Your task to perform on an android device: What's the US dollar exchange rateagainst the Swiss Franc? Image 0: 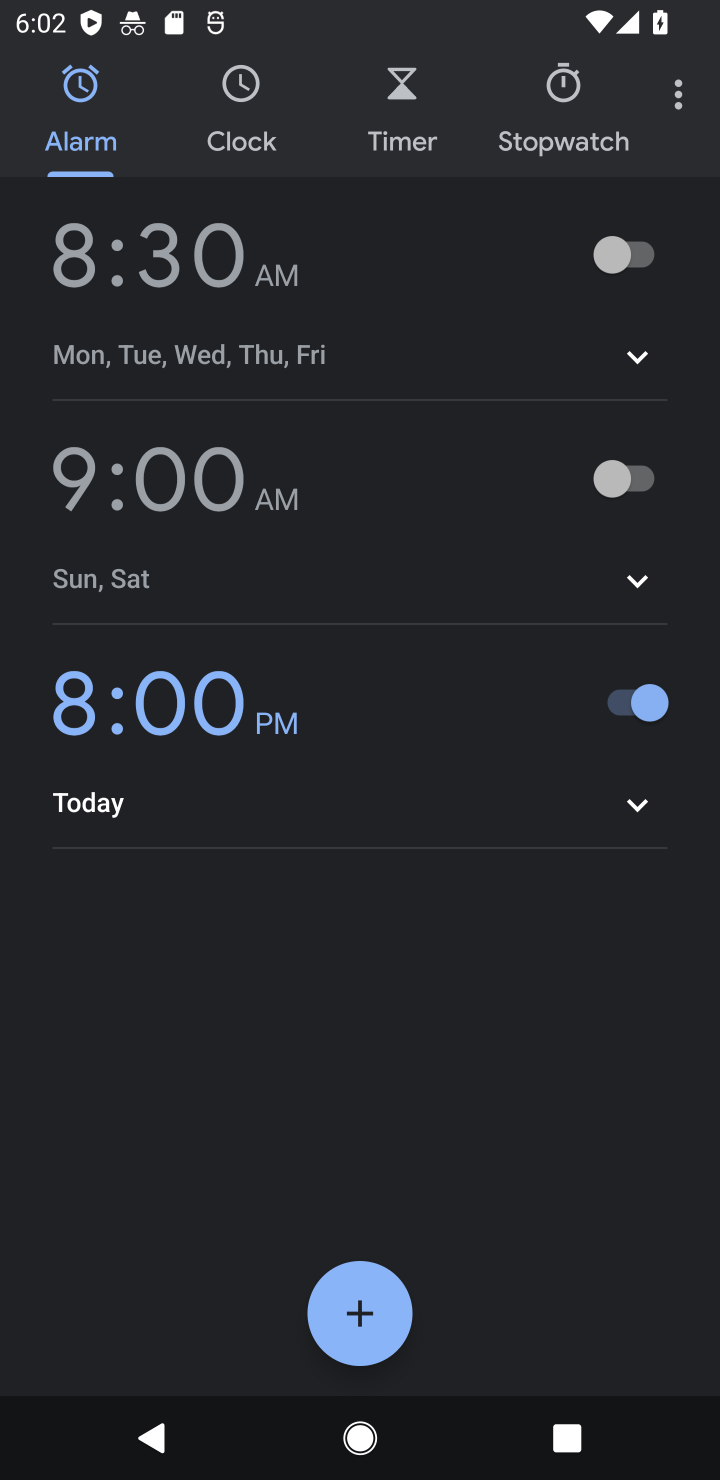
Step 0: press home button
Your task to perform on an android device: What's the US dollar exchange rateagainst the Swiss Franc? Image 1: 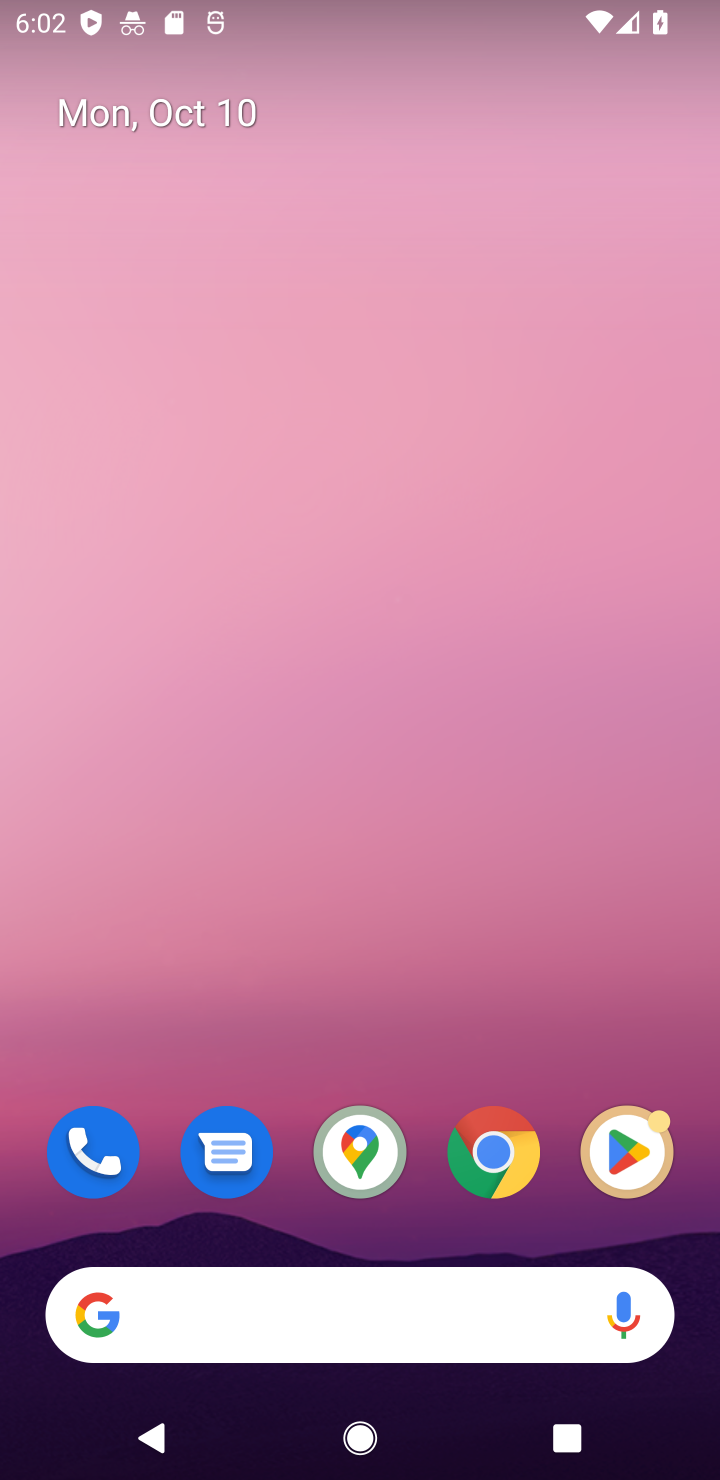
Step 1: click (487, 1154)
Your task to perform on an android device: What's the US dollar exchange rateagainst the Swiss Franc? Image 2: 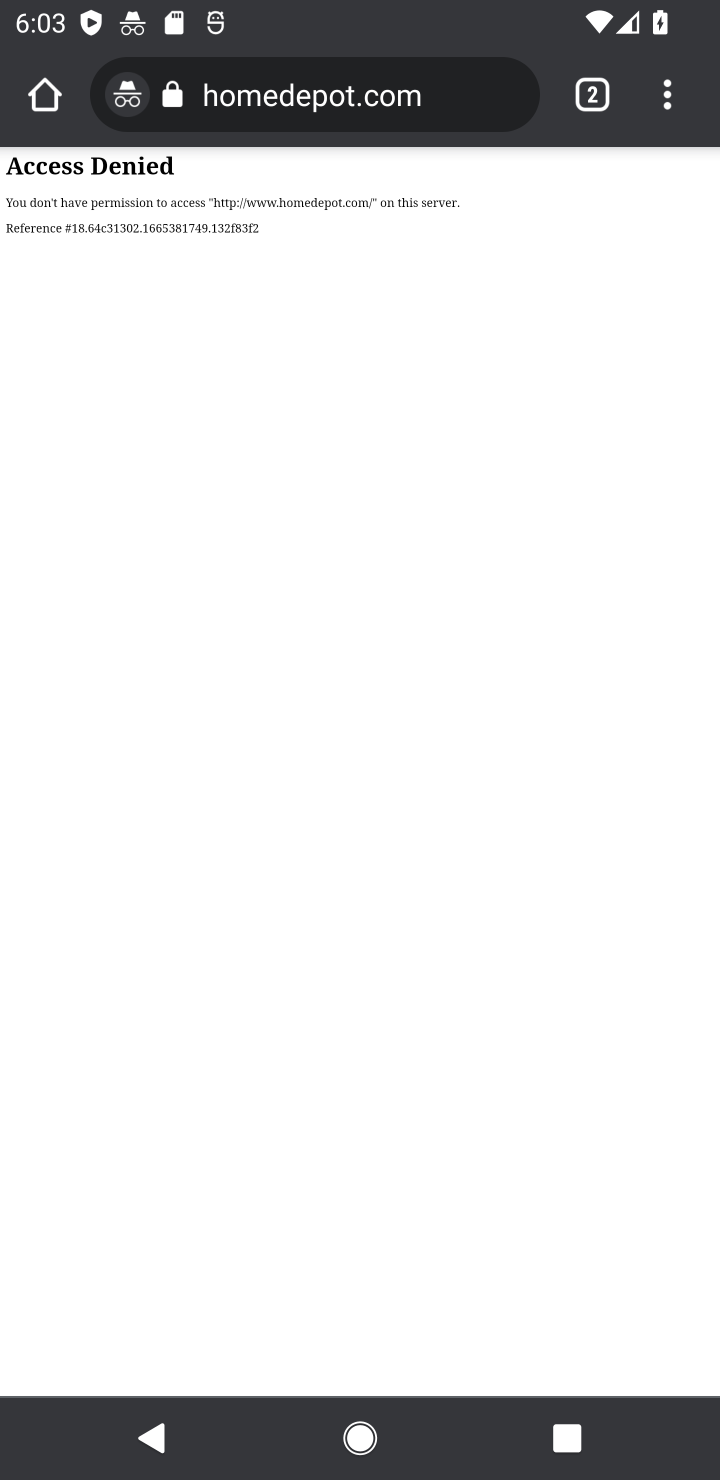
Step 2: click (435, 107)
Your task to perform on an android device: What's the US dollar exchange rateagainst the Swiss Franc? Image 3: 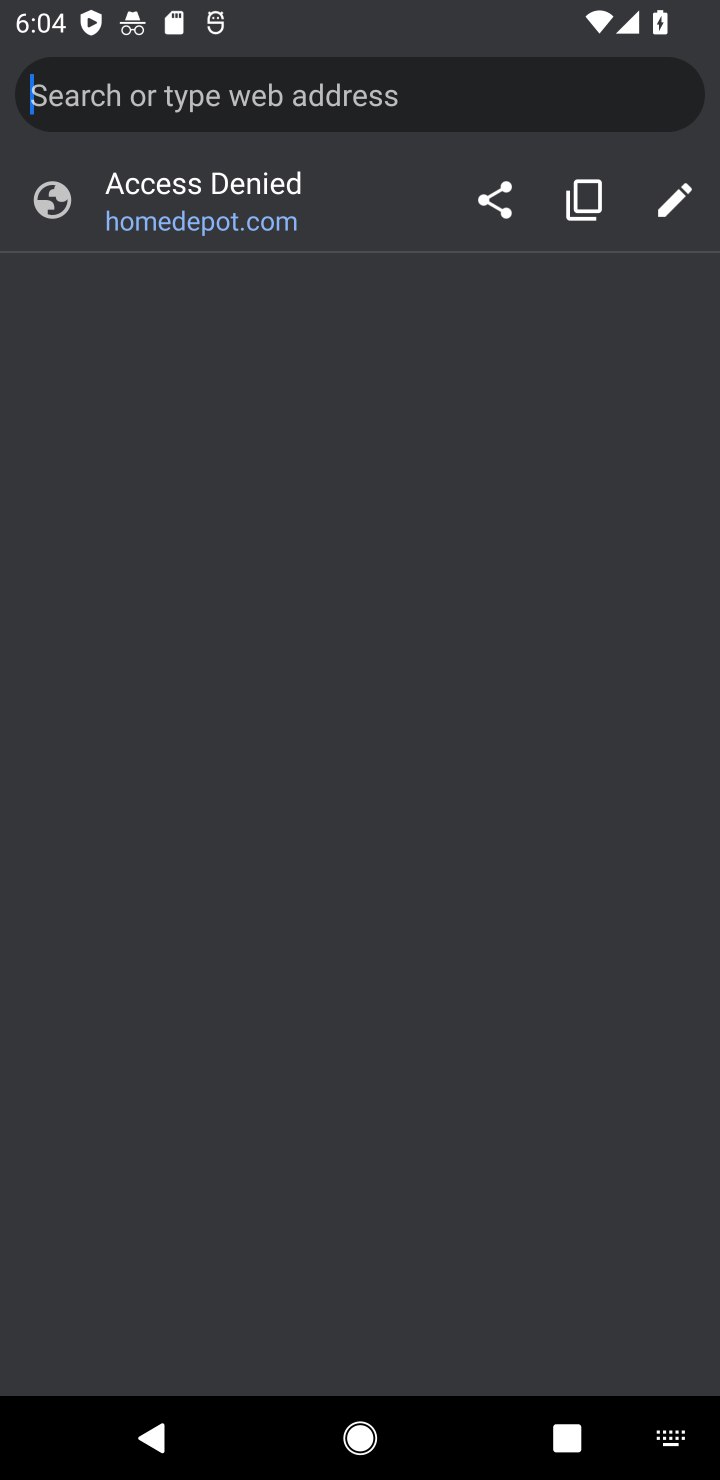
Step 3: type "US dollar exchange rateagainst the Swiss France"
Your task to perform on an android device: What's the US dollar exchange rateagainst the Swiss Franc? Image 4: 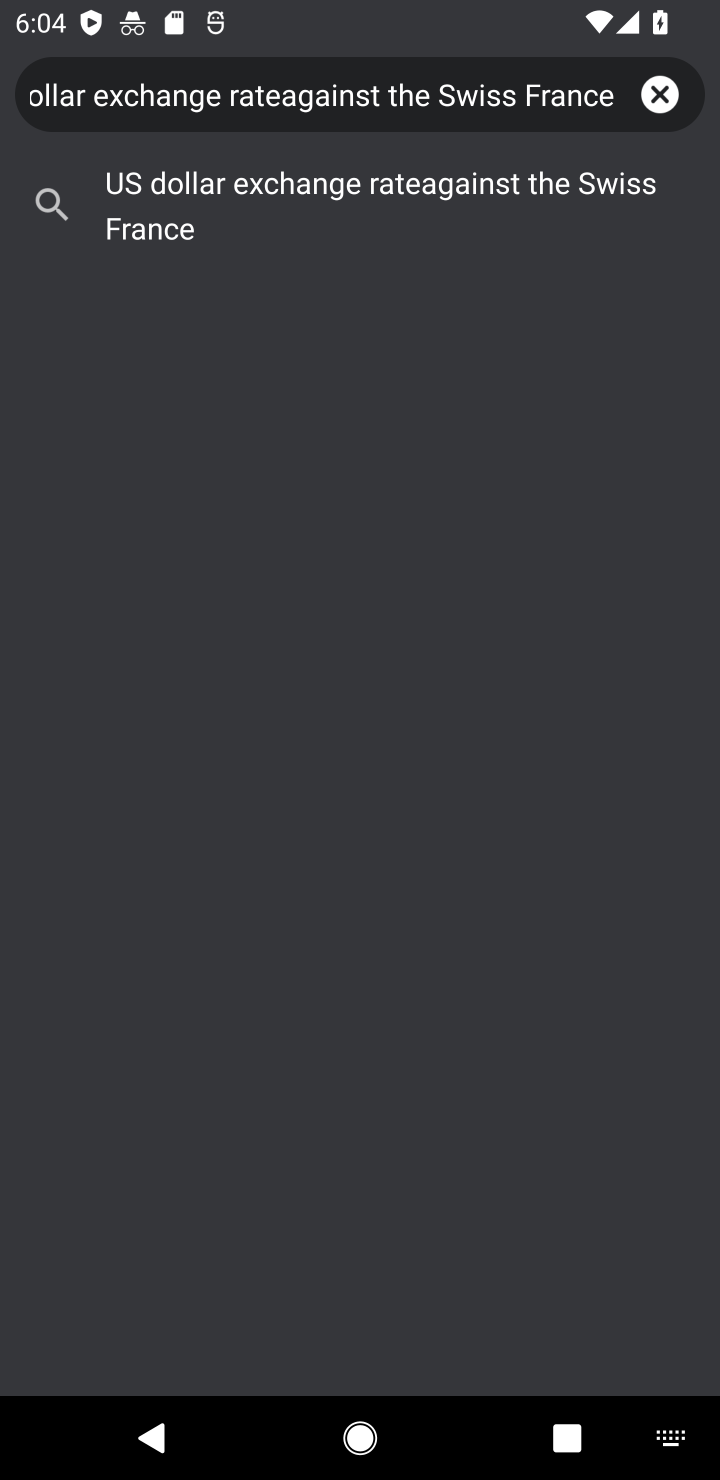
Step 4: click (192, 195)
Your task to perform on an android device: What's the US dollar exchange rateagainst the Swiss Franc? Image 5: 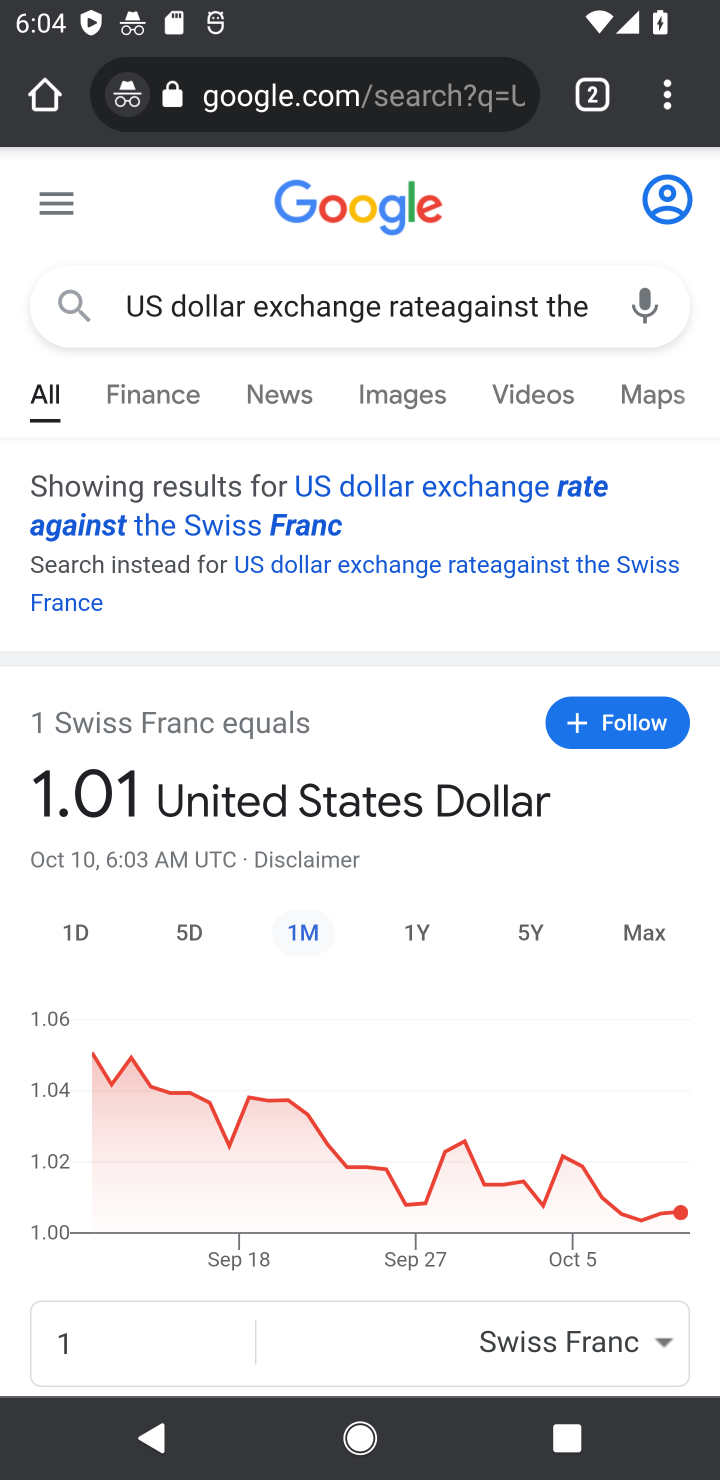
Step 5: task complete